Your task to perform on an android device: check battery use Image 0: 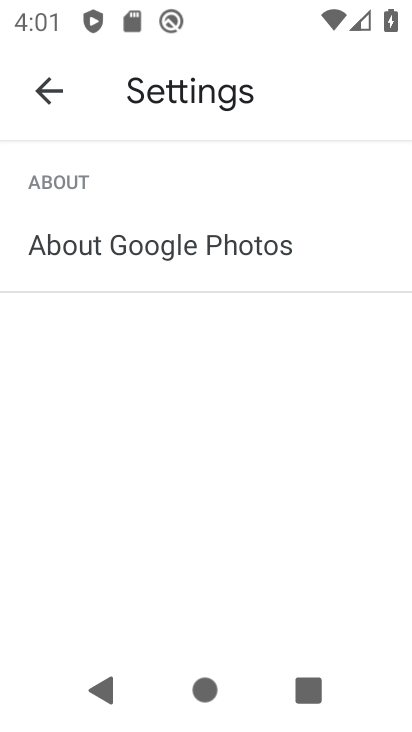
Step 0: press home button
Your task to perform on an android device: check battery use Image 1: 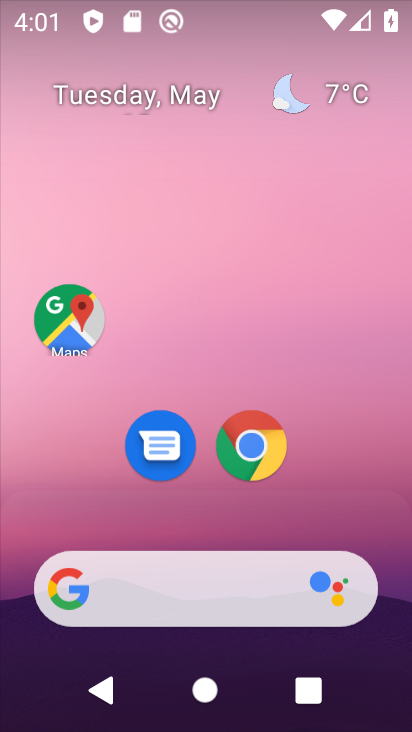
Step 1: drag from (233, 511) to (309, 0)
Your task to perform on an android device: check battery use Image 2: 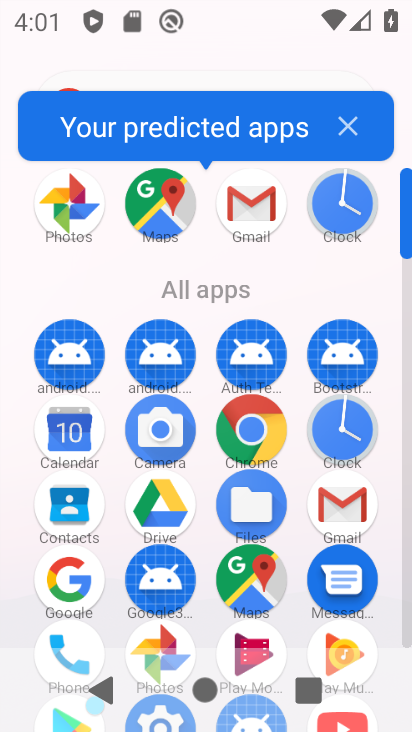
Step 2: drag from (298, 530) to (318, 95)
Your task to perform on an android device: check battery use Image 3: 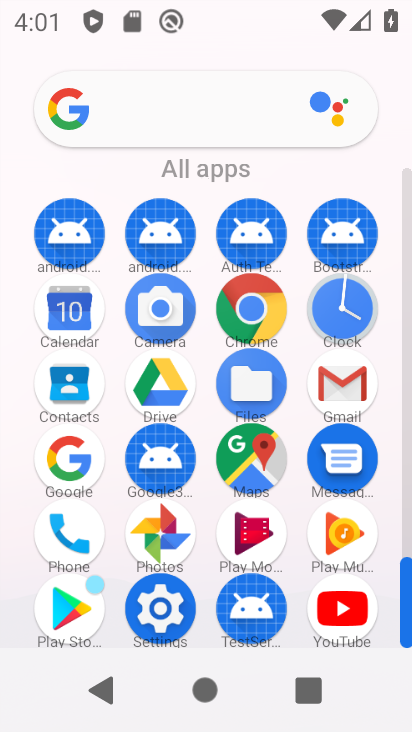
Step 3: click (165, 623)
Your task to perform on an android device: check battery use Image 4: 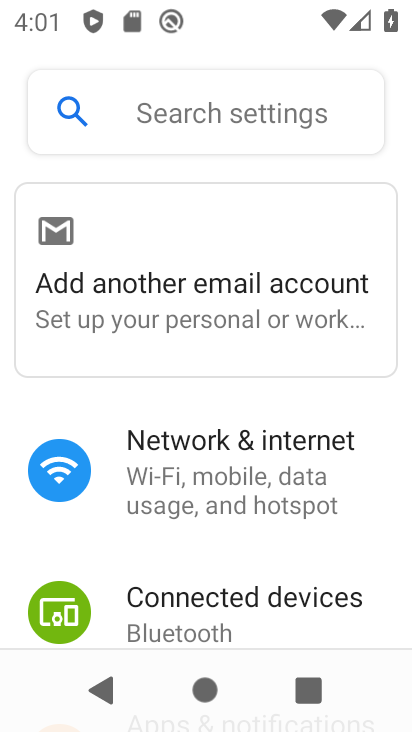
Step 4: drag from (219, 526) to (285, 181)
Your task to perform on an android device: check battery use Image 5: 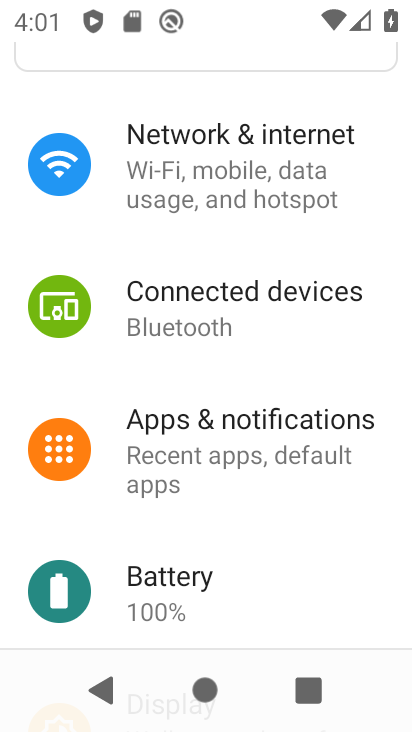
Step 5: click (190, 589)
Your task to perform on an android device: check battery use Image 6: 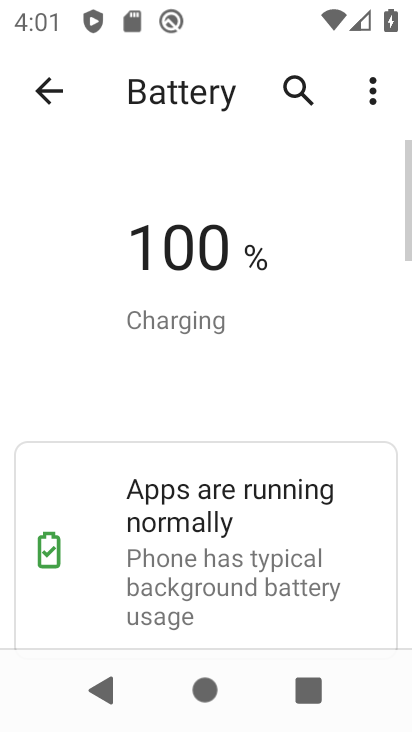
Step 6: click (364, 87)
Your task to perform on an android device: check battery use Image 7: 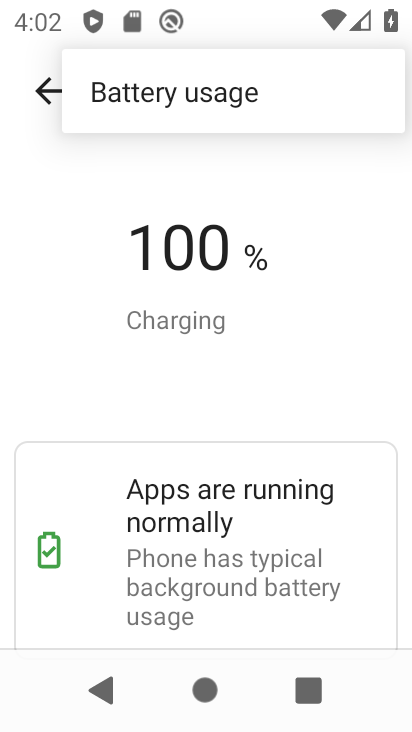
Step 7: click (243, 111)
Your task to perform on an android device: check battery use Image 8: 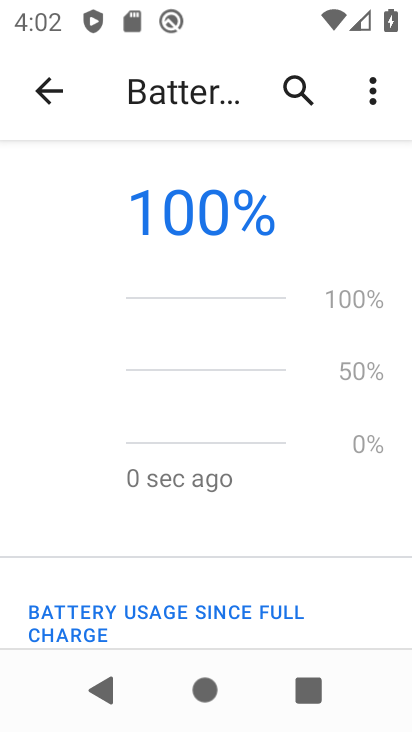
Step 8: task complete